Your task to perform on an android device: toggle pop-ups in chrome Image 0: 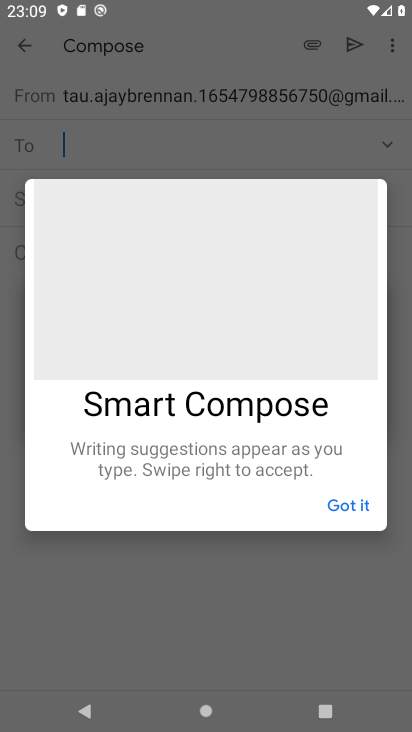
Step 0: press home button
Your task to perform on an android device: toggle pop-ups in chrome Image 1: 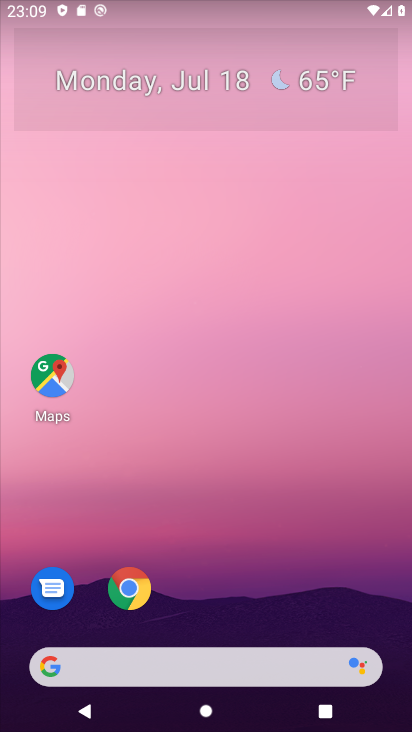
Step 1: click (143, 585)
Your task to perform on an android device: toggle pop-ups in chrome Image 2: 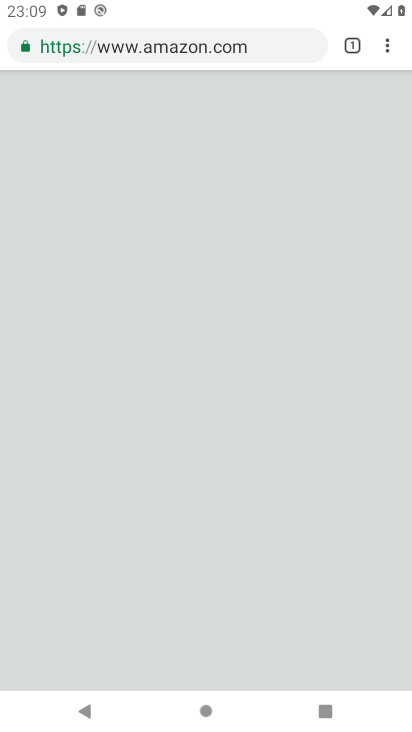
Step 2: drag from (385, 41) to (238, 549)
Your task to perform on an android device: toggle pop-ups in chrome Image 3: 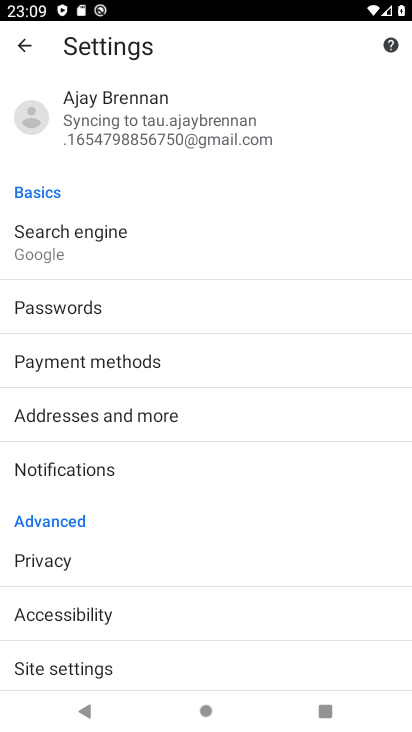
Step 3: click (68, 665)
Your task to perform on an android device: toggle pop-ups in chrome Image 4: 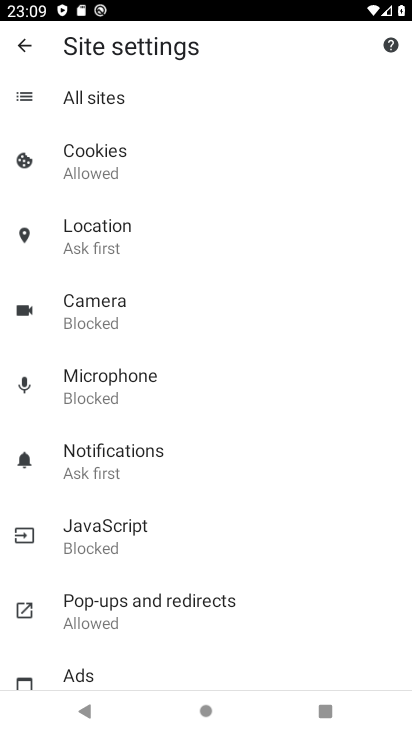
Step 4: click (119, 605)
Your task to perform on an android device: toggle pop-ups in chrome Image 5: 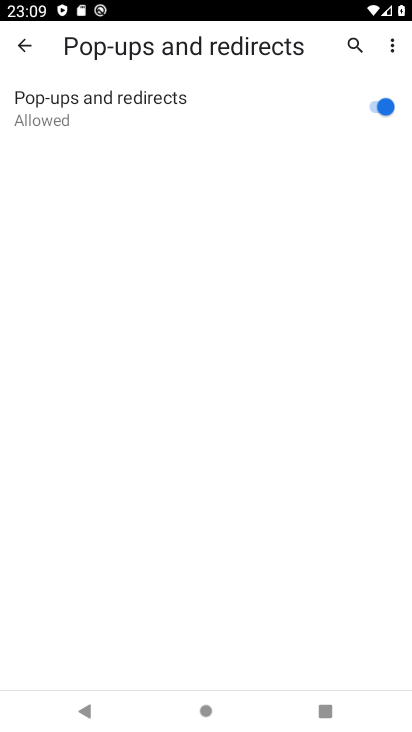
Step 5: click (387, 107)
Your task to perform on an android device: toggle pop-ups in chrome Image 6: 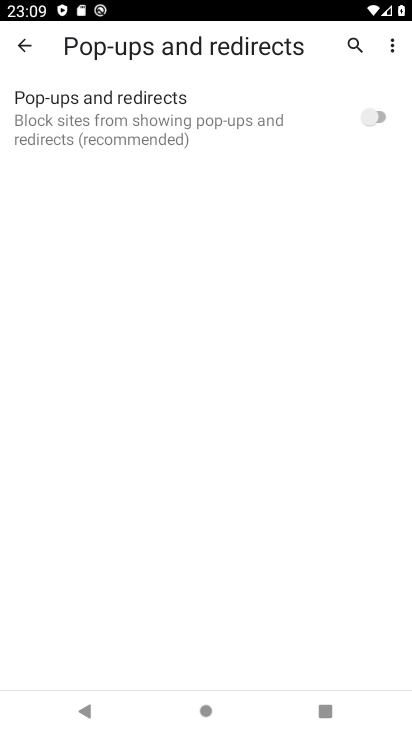
Step 6: task complete